Your task to perform on an android device: Search for sushi restaurants on Maps Image 0: 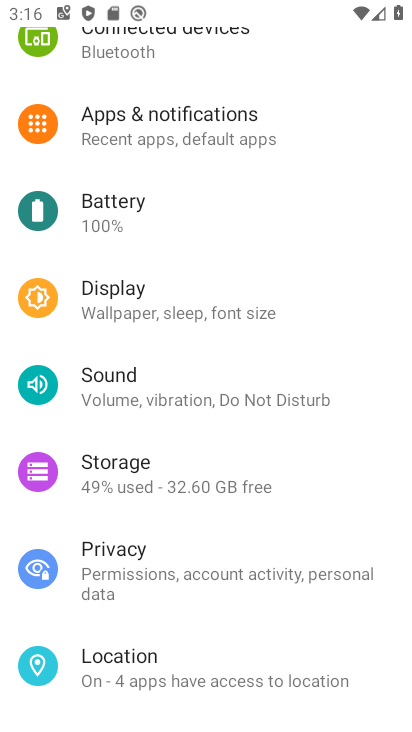
Step 0: press home button
Your task to perform on an android device: Search for sushi restaurants on Maps Image 1: 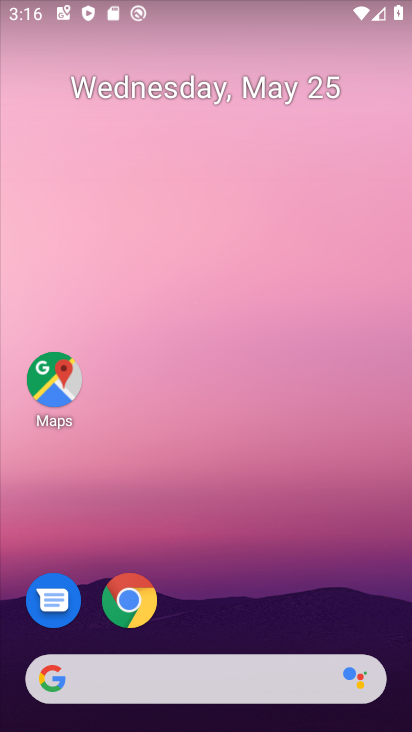
Step 1: click (64, 370)
Your task to perform on an android device: Search for sushi restaurants on Maps Image 2: 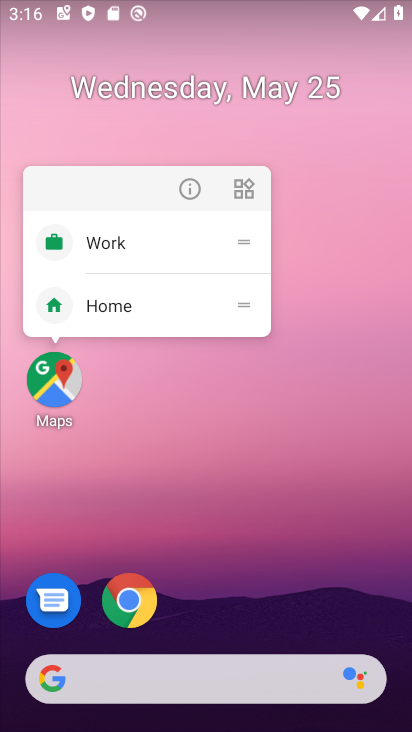
Step 2: click (34, 375)
Your task to perform on an android device: Search for sushi restaurants on Maps Image 3: 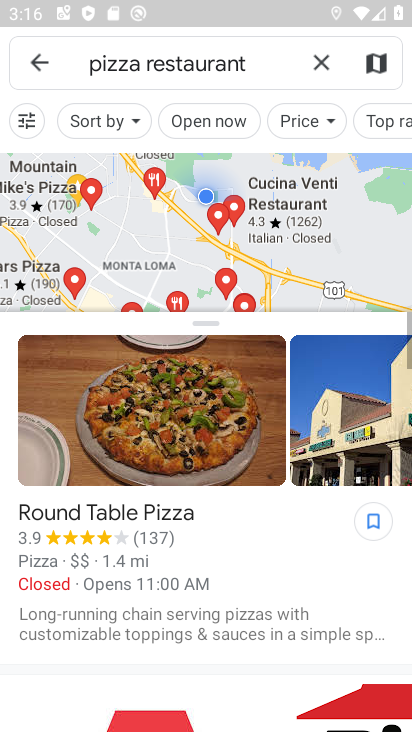
Step 3: click (325, 64)
Your task to perform on an android device: Search for sushi restaurants on Maps Image 4: 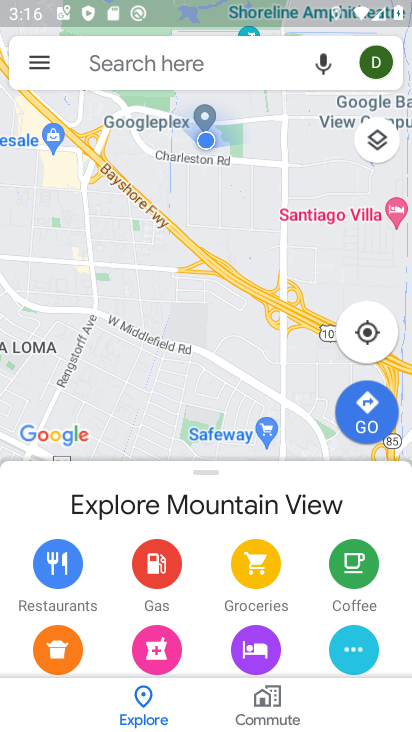
Step 4: click (213, 72)
Your task to perform on an android device: Search for sushi restaurants on Maps Image 5: 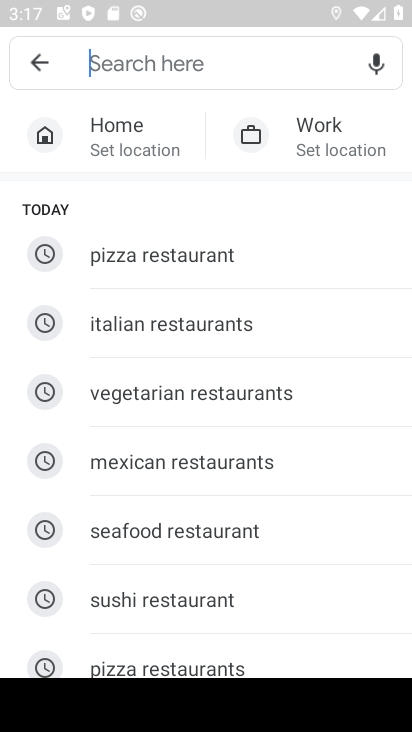
Step 5: click (185, 594)
Your task to perform on an android device: Search for sushi restaurants on Maps Image 6: 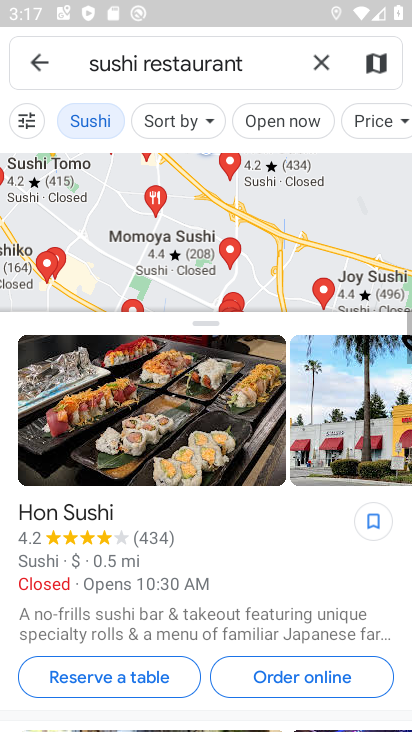
Step 6: task complete